Your task to perform on an android device: toggle priority inbox in the gmail app Image 0: 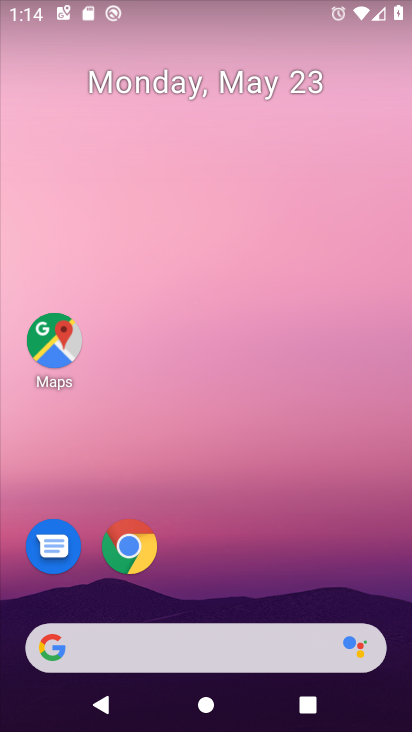
Step 0: drag from (237, 635) to (323, 9)
Your task to perform on an android device: toggle priority inbox in the gmail app Image 1: 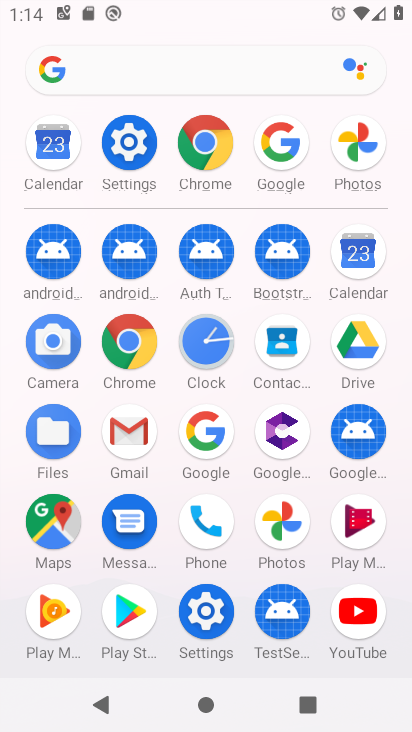
Step 1: click (134, 447)
Your task to perform on an android device: toggle priority inbox in the gmail app Image 2: 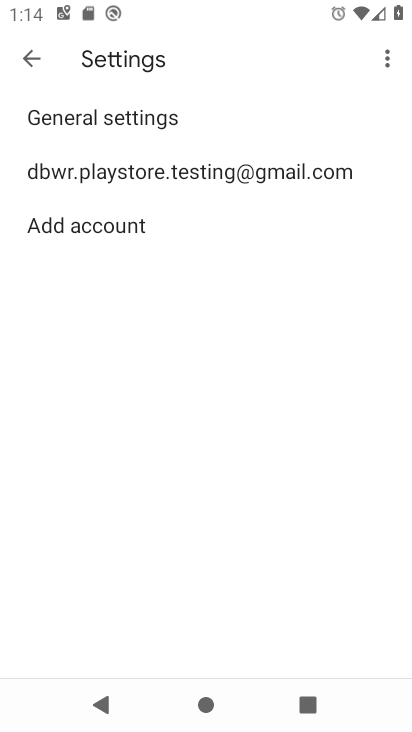
Step 2: click (211, 176)
Your task to perform on an android device: toggle priority inbox in the gmail app Image 3: 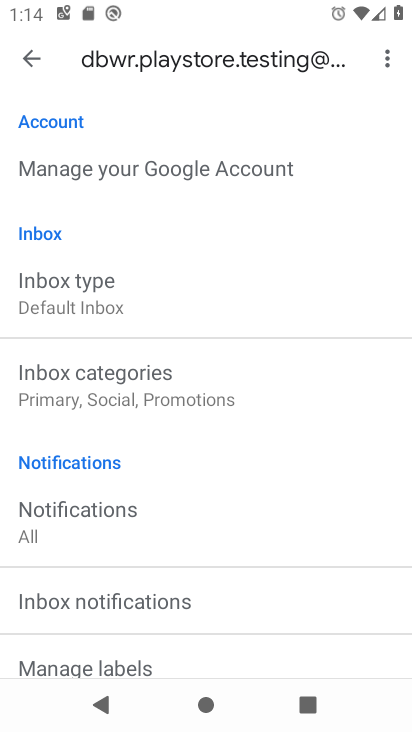
Step 3: click (171, 300)
Your task to perform on an android device: toggle priority inbox in the gmail app Image 4: 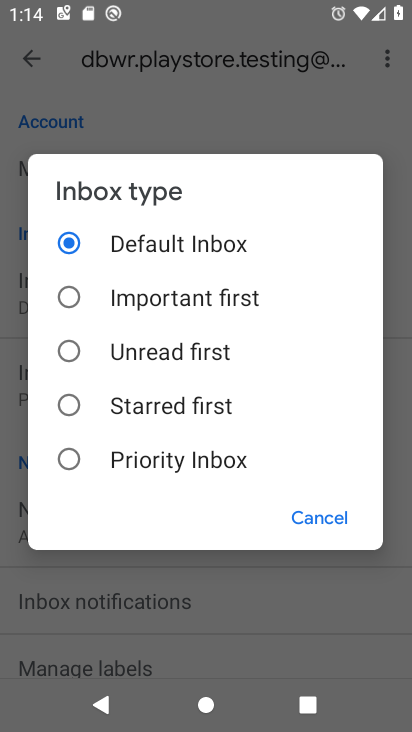
Step 4: click (156, 470)
Your task to perform on an android device: toggle priority inbox in the gmail app Image 5: 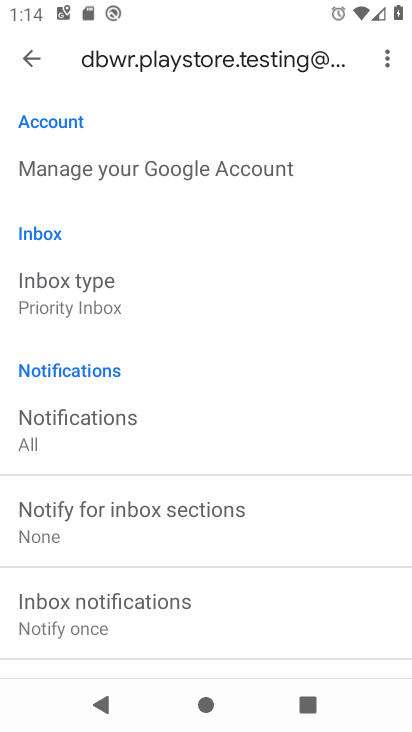
Step 5: task complete